Your task to perform on an android device: Go to Yahoo.com Image 0: 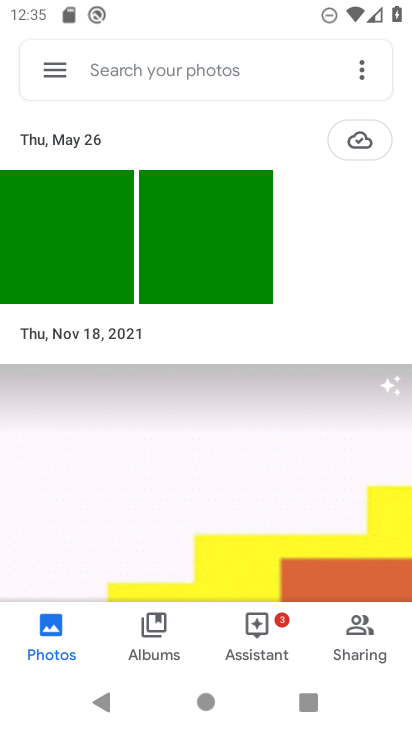
Step 0: press home button
Your task to perform on an android device: Go to Yahoo.com Image 1: 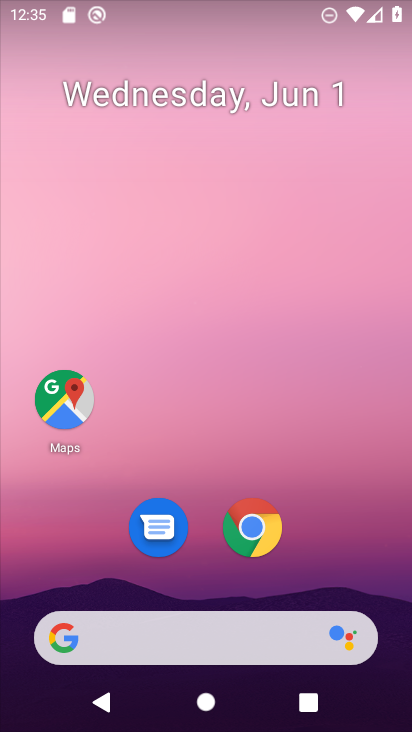
Step 1: click (242, 651)
Your task to perform on an android device: Go to Yahoo.com Image 2: 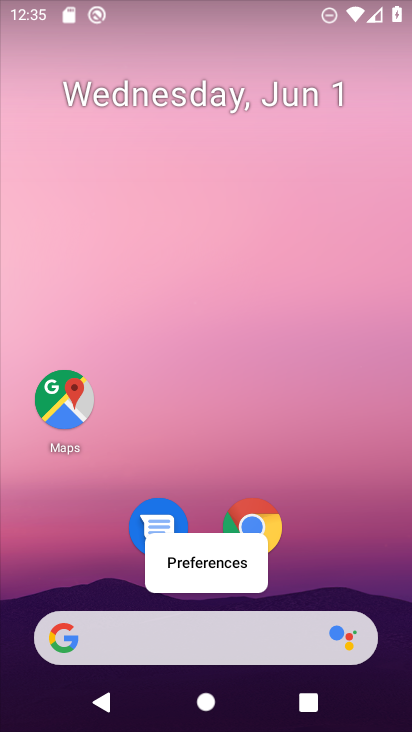
Step 2: click (196, 649)
Your task to perform on an android device: Go to Yahoo.com Image 3: 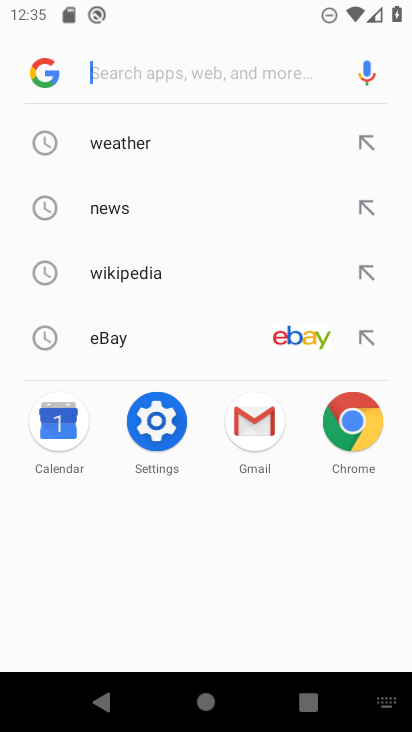
Step 3: type "yahoo.com"
Your task to perform on an android device: Go to Yahoo.com Image 4: 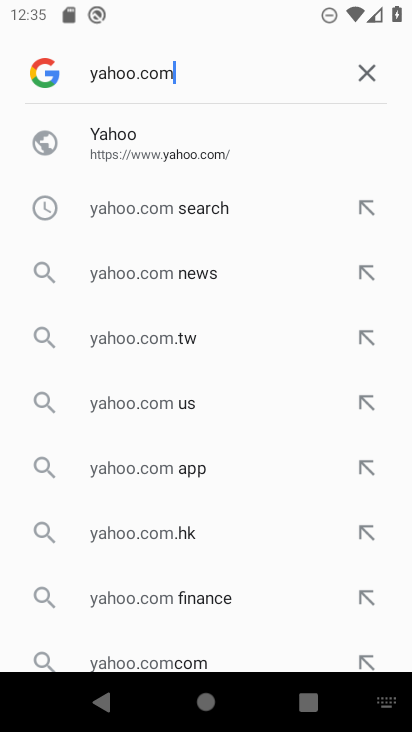
Step 4: click (193, 155)
Your task to perform on an android device: Go to Yahoo.com Image 5: 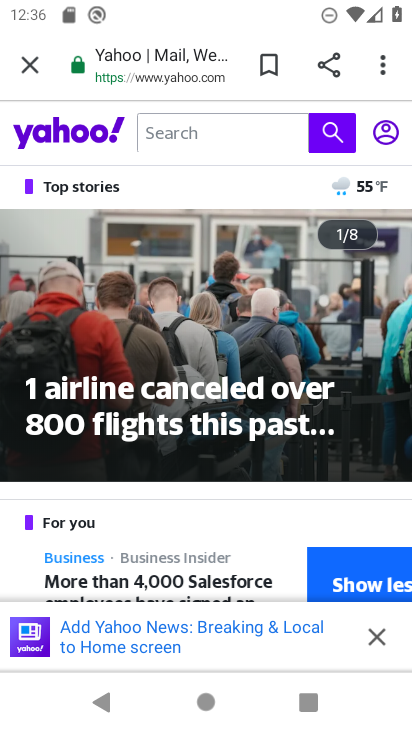
Step 5: task complete